Your task to perform on an android device: find which apps use the phone's location Image 0: 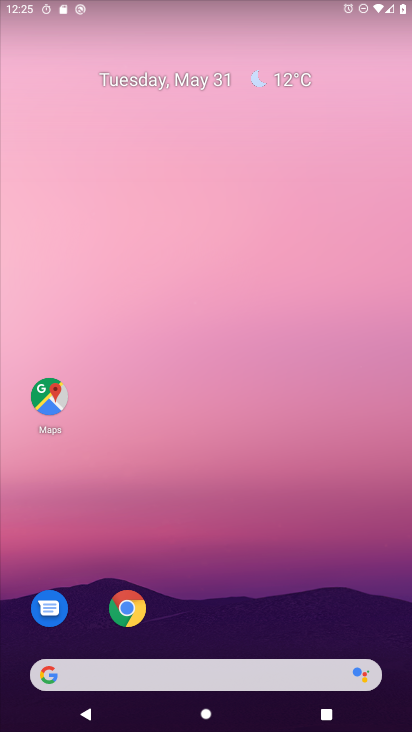
Step 0: drag from (296, 632) to (299, 37)
Your task to perform on an android device: find which apps use the phone's location Image 1: 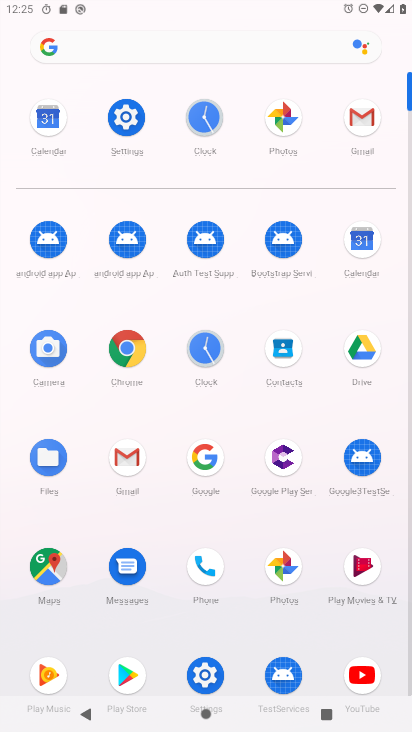
Step 1: click (127, 114)
Your task to perform on an android device: find which apps use the phone's location Image 2: 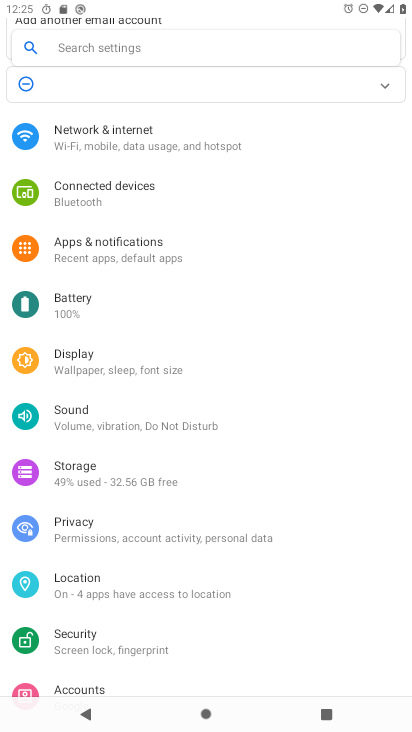
Step 2: click (70, 586)
Your task to perform on an android device: find which apps use the phone's location Image 3: 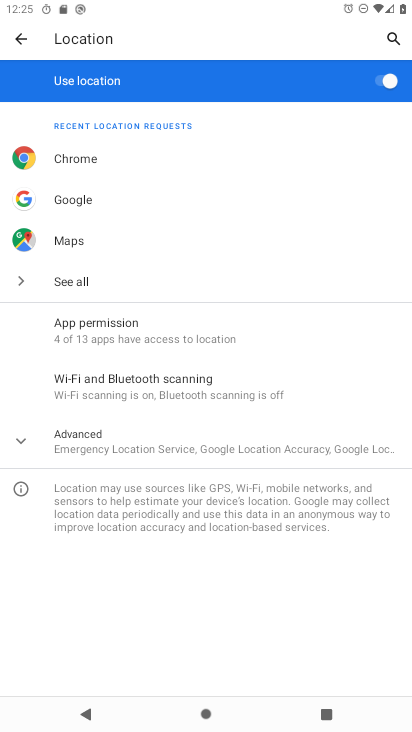
Step 3: click (71, 336)
Your task to perform on an android device: find which apps use the phone's location Image 4: 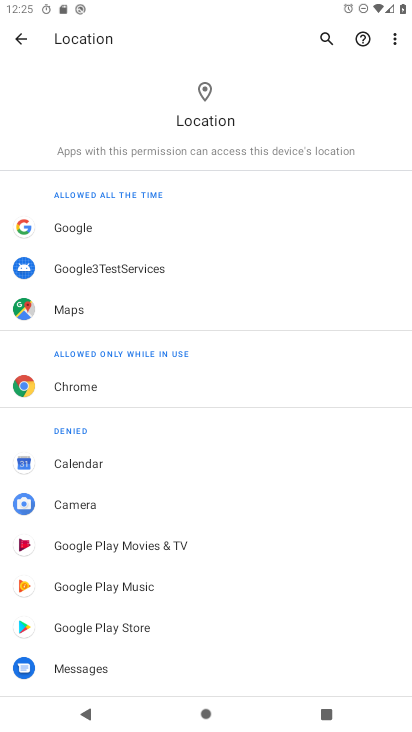
Step 4: task complete